Your task to perform on an android device: Go to Yahoo.com Image 0: 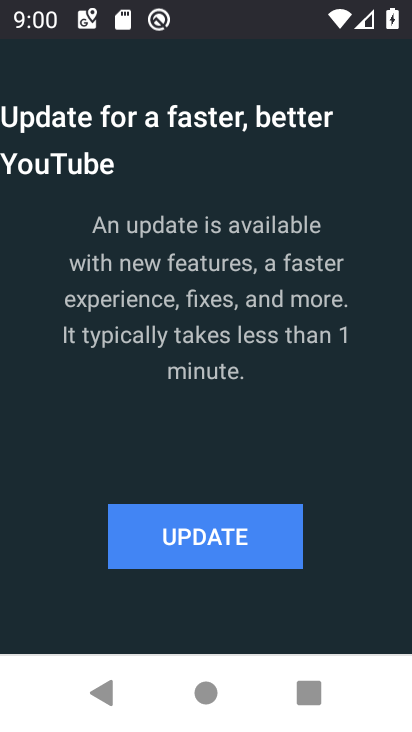
Step 0: press home button
Your task to perform on an android device: Go to Yahoo.com Image 1: 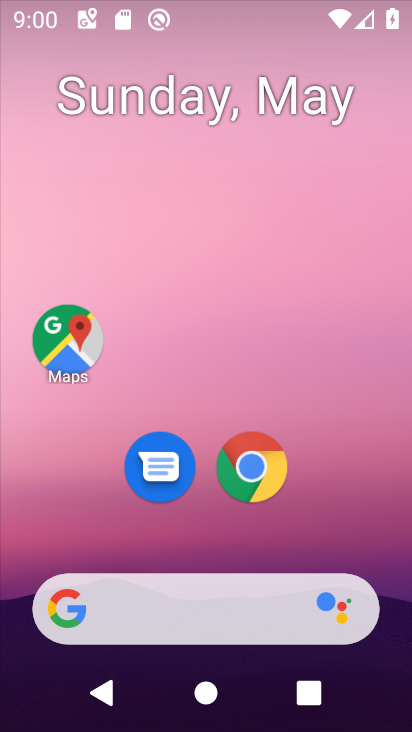
Step 1: drag from (347, 527) to (319, 82)
Your task to perform on an android device: Go to Yahoo.com Image 2: 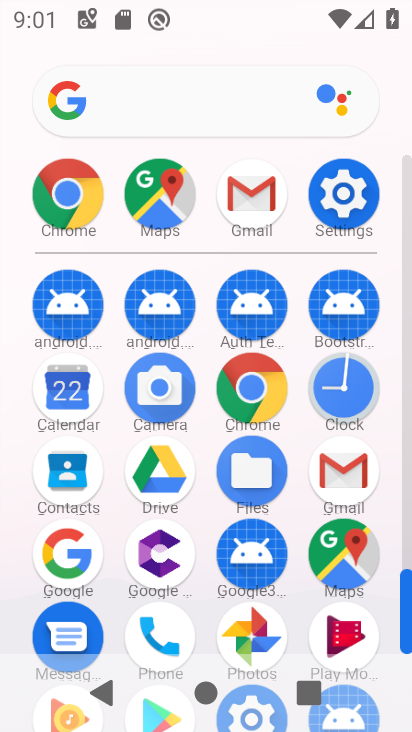
Step 2: click (246, 372)
Your task to perform on an android device: Go to Yahoo.com Image 3: 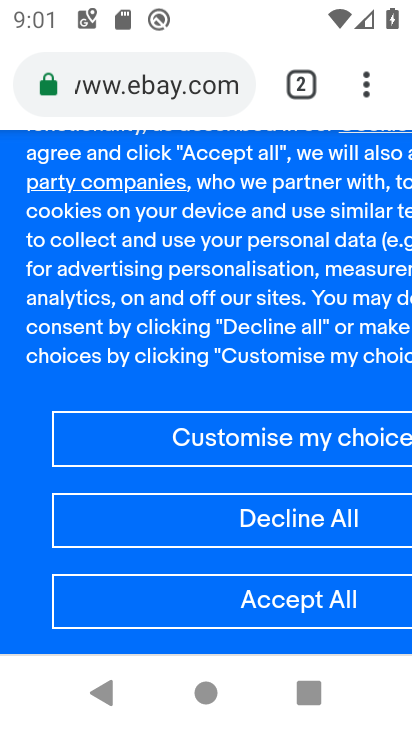
Step 3: click (207, 78)
Your task to perform on an android device: Go to Yahoo.com Image 4: 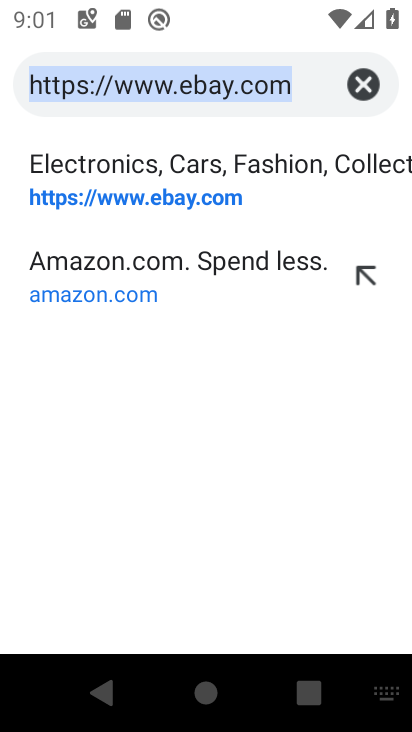
Step 4: click (364, 89)
Your task to perform on an android device: Go to Yahoo.com Image 5: 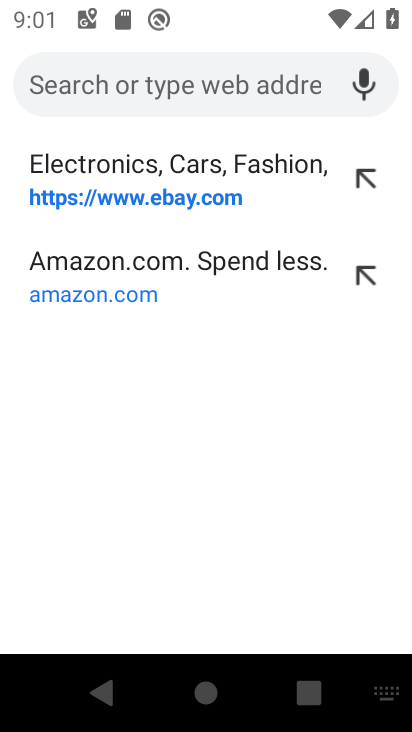
Step 5: type "yahoo.com"
Your task to perform on an android device: Go to Yahoo.com Image 6: 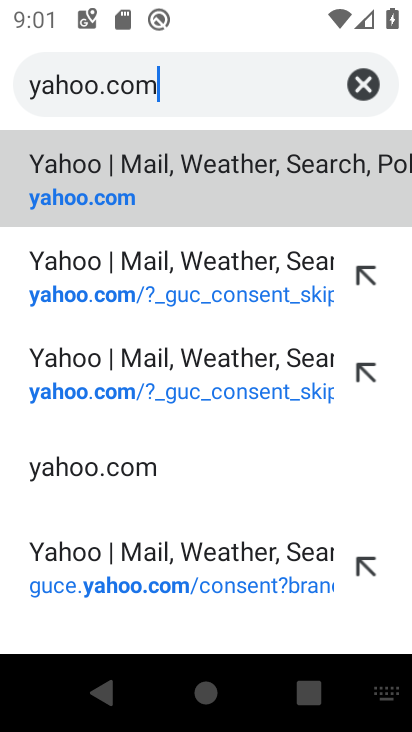
Step 6: click (151, 181)
Your task to perform on an android device: Go to Yahoo.com Image 7: 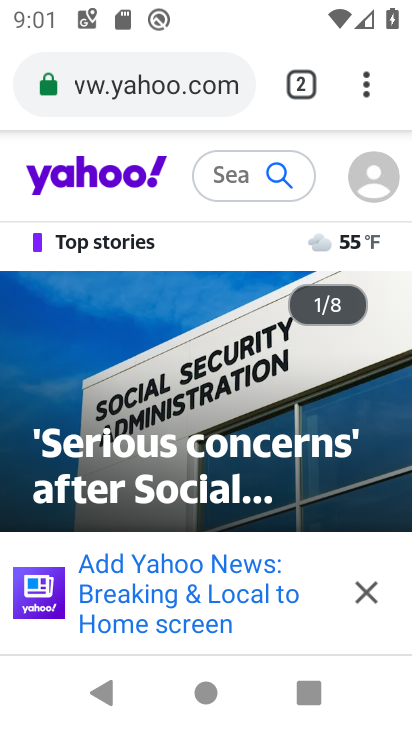
Step 7: task complete